Your task to perform on an android device: Open Google Maps Image 0: 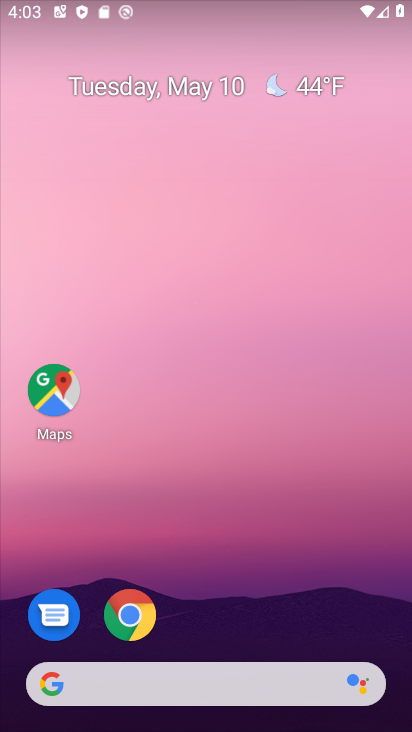
Step 0: drag from (238, 726) to (242, 162)
Your task to perform on an android device: Open Google Maps Image 1: 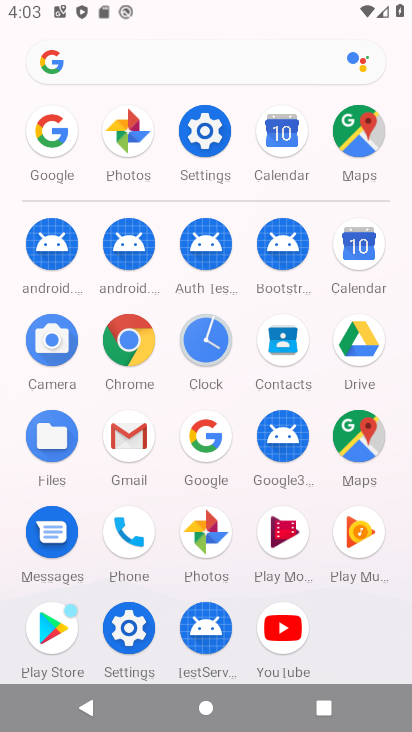
Step 1: click (353, 439)
Your task to perform on an android device: Open Google Maps Image 2: 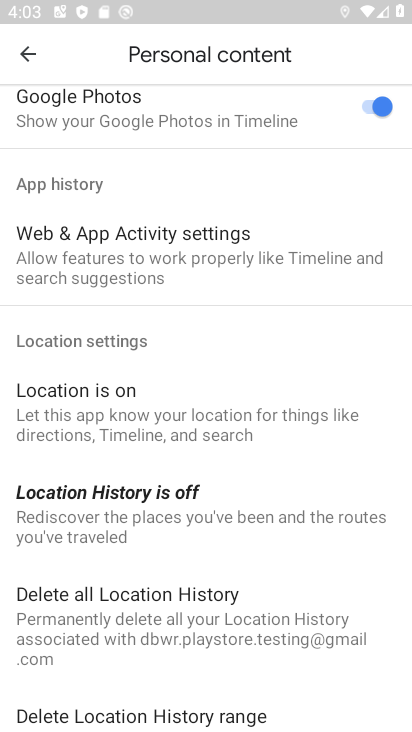
Step 2: click (23, 49)
Your task to perform on an android device: Open Google Maps Image 3: 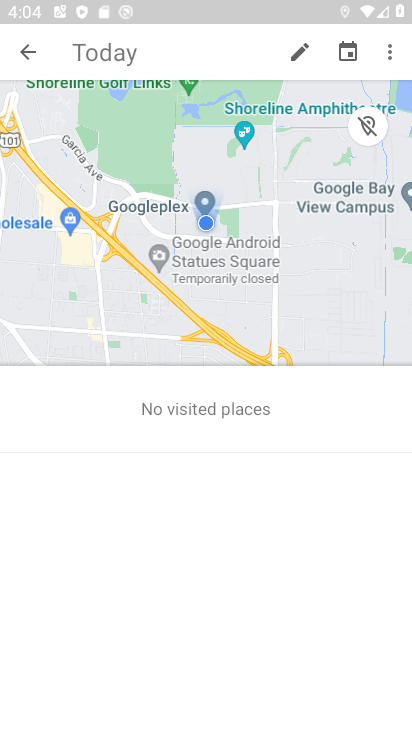
Step 3: click (23, 49)
Your task to perform on an android device: Open Google Maps Image 4: 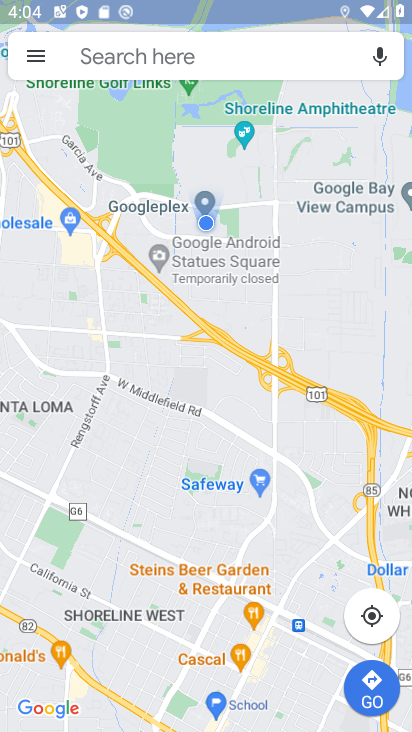
Step 4: task complete